Your task to perform on an android device: Clear all items from cart on newegg. Add bose quietcomfort 35 to the cart on newegg, then select checkout. Image 0: 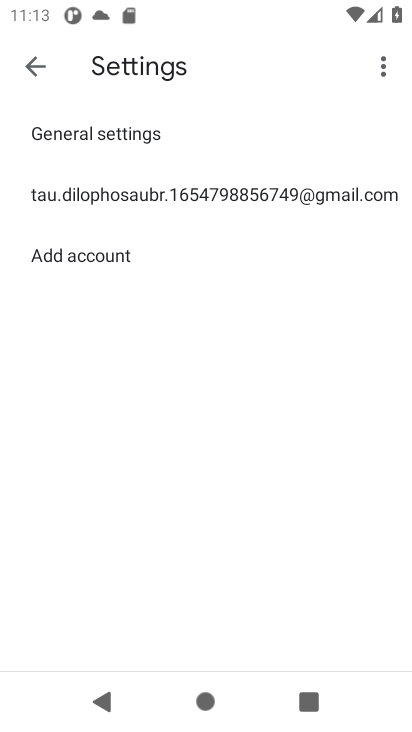
Step 0: press home button
Your task to perform on an android device: Clear all items from cart on newegg. Add bose quietcomfort 35 to the cart on newegg, then select checkout. Image 1: 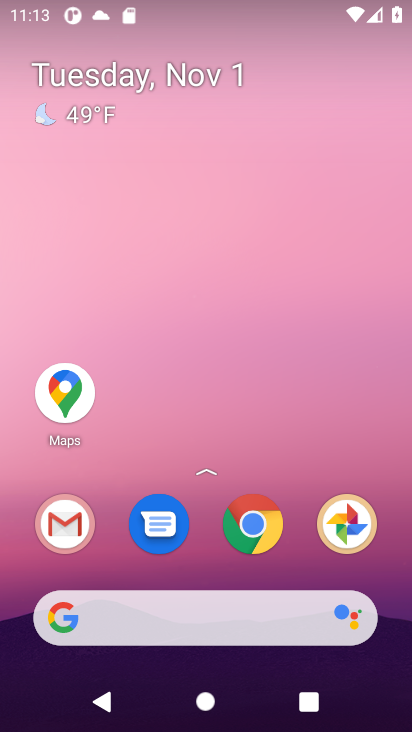
Step 1: click (92, 612)
Your task to perform on an android device: Clear all items from cart on newegg. Add bose quietcomfort 35 to the cart on newegg, then select checkout. Image 2: 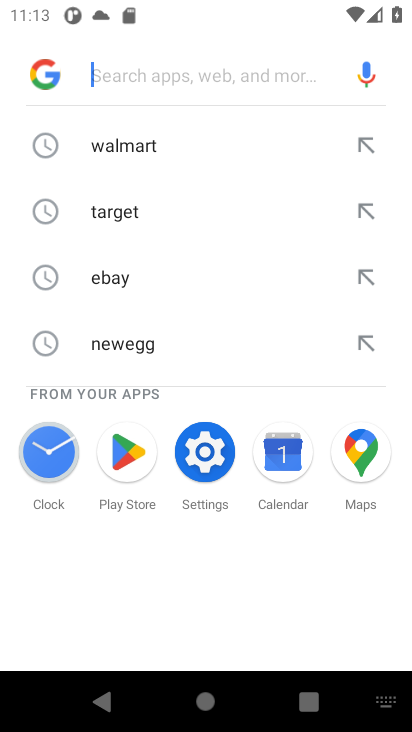
Step 2: type "newegg"
Your task to perform on an android device: Clear all items from cart on newegg. Add bose quietcomfort 35 to the cart on newegg, then select checkout. Image 3: 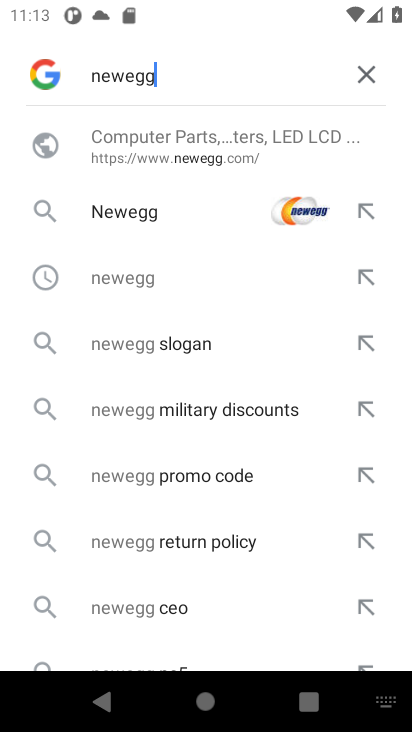
Step 3: press enter
Your task to perform on an android device: Clear all items from cart on newegg. Add bose quietcomfort 35 to the cart on newegg, then select checkout. Image 4: 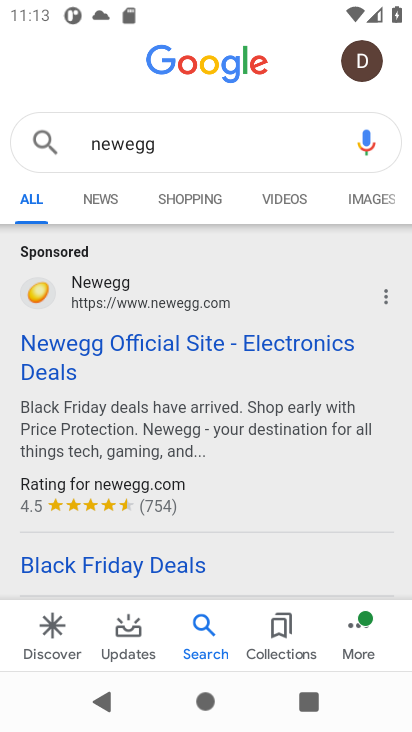
Step 4: click (243, 356)
Your task to perform on an android device: Clear all items from cart on newegg. Add bose quietcomfort 35 to the cart on newegg, then select checkout. Image 5: 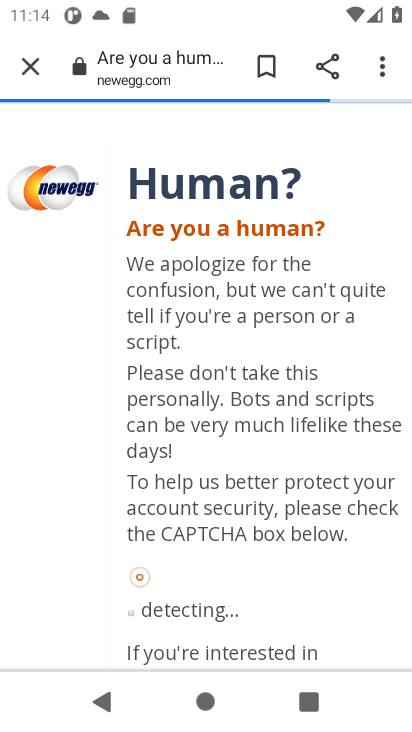
Step 5: drag from (259, 529) to (277, 250)
Your task to perform on an android device: Clear all items from cart on newegg. Add bose quietcomfort 35 to the cart on newegg, then select checkout. Image 6: 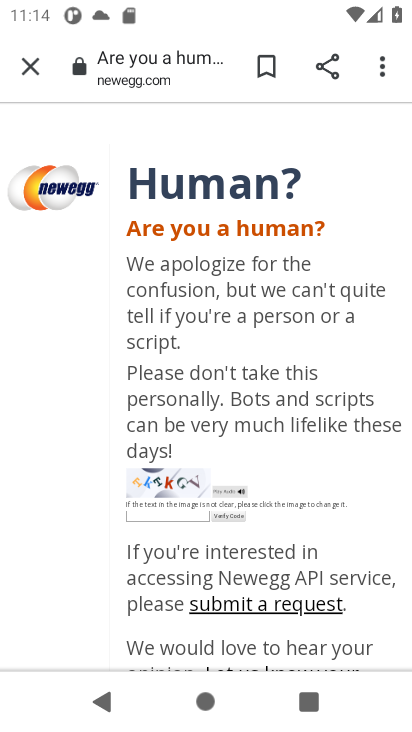
Step 6: click (150, 517)
Your task to perform on an android device: Clear all items from cart on newegg. Add bose quietcomfort 35 to the cart on newegg, then select checkout. Image 7: 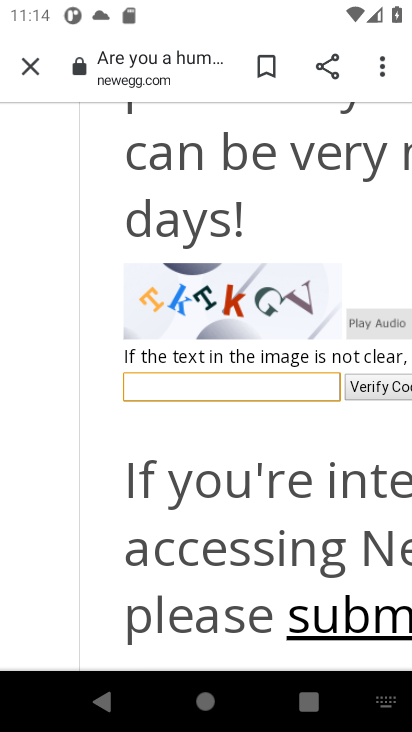
Step 7: type "TkTKGV"
Your task to perform on an android device: Clear all items from cart on newegg. Add bose quietcomfort 35 to the cart on newegg, then select checkout. Image 8: 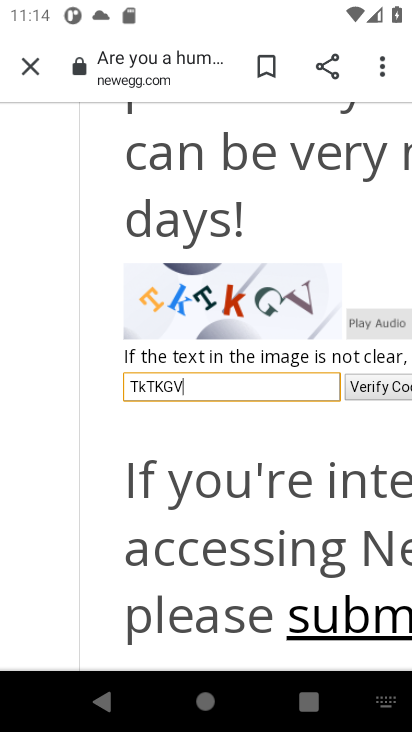
Step 8: press enter
Your task to perform on an android device: Clear all items from cart on newegg. Add bose quietcomfort 35 to the cart on newegg, then select checkout. Image 9: 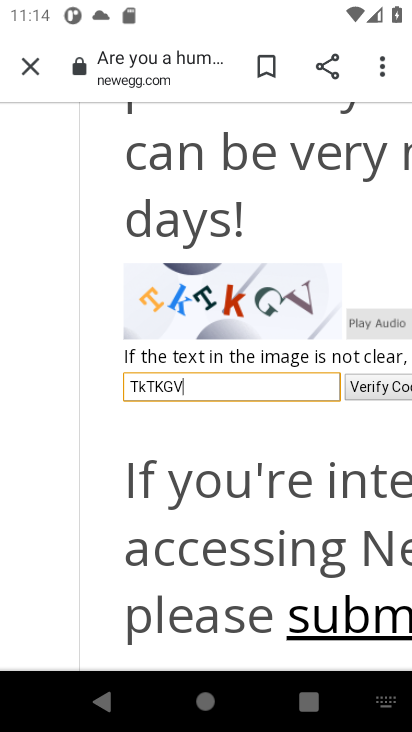
Step 9: click (383, 385)
Your task to perform on an android device: Clear all items from cart on newegg. Add bose quietcomfort 35 to the cart on newegg, then select checkout. Image 10: 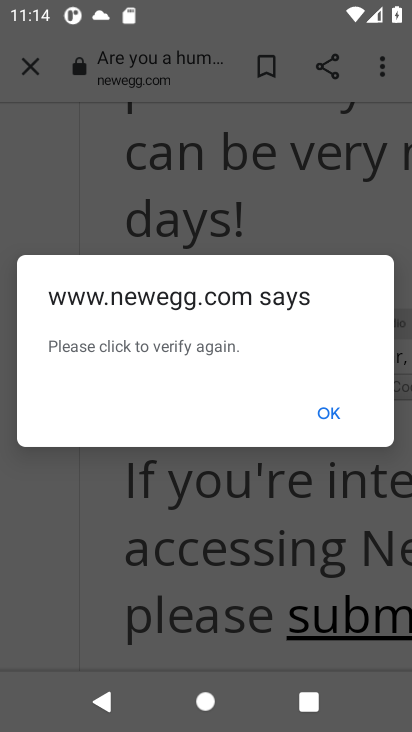
Step 10: click (332, 414)
Your task to perform on an android device: Clear all items from cart on newegg. Add bose quietcomfort 35 to the cart on newegg, then select checkout. Image 11: 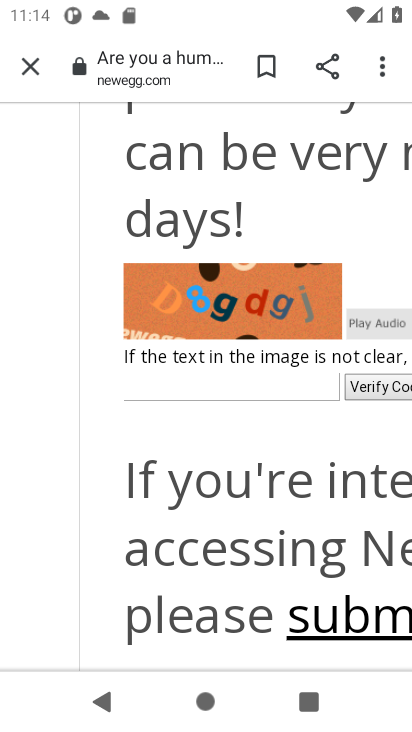
Step 11: click (237, 384)
Your task to perform on an android device: Clear all items from cart on newegg. Add bose quietcomfort 35 to the cart on newegg, then select checkout. Image 12: 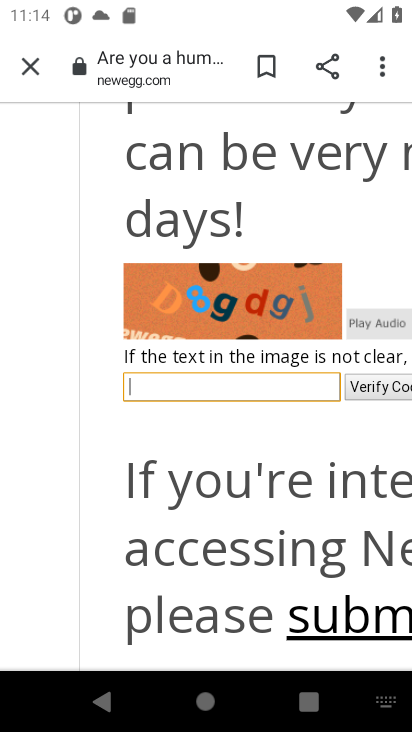
Step 12: type "D8gdgj"
Your task to perform on an android device: Clear all items from cart on newegg. Add bose quietcomfort 35 to the cart on newegg, then select checkout. Image 13: 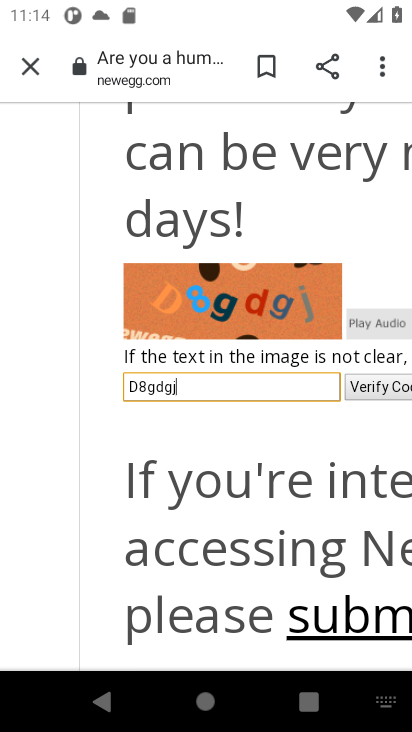
Step 13: press enter
Your task to perform on an android device: Clear all items from cart on newegg. Add bose quietcomfort 35 to the cart on newegg, then select checkout. Image 14: 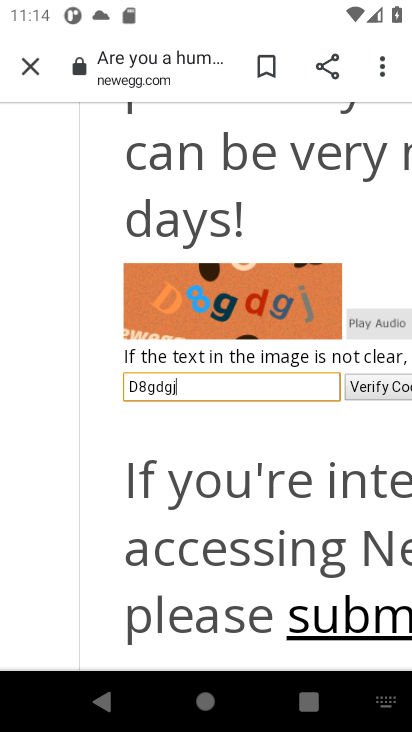
Step 14: click (376, 386)
Your task to perform on an android device: Clear all items from cart on newegg. Add bose quietcomfort 35 to the cart on newegg, then select checkout. Image 15: 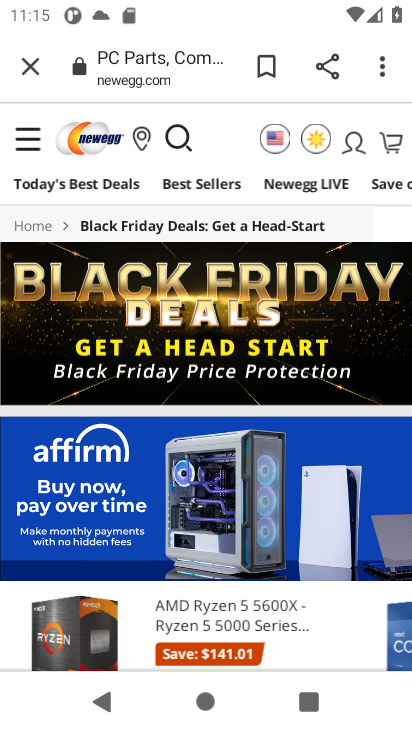
Step 15: click (397, 142)
Your task to perform on an android device: Clear all items from cart on newegg. Add bose quietcomfort 35 to the cart on newegg, then select checkout. Image 16: 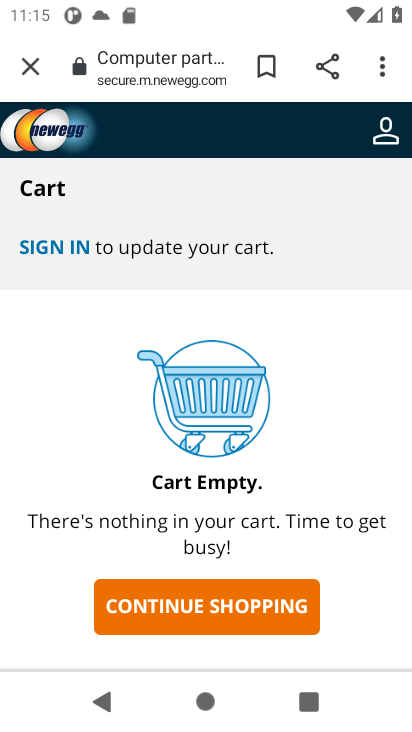
Step 16: press back button
Your task to perform on an android device: Clear all items from cart on newegg. Add bose quietcomfort 35 to the cart on newegg, then select checkout. Image 17: 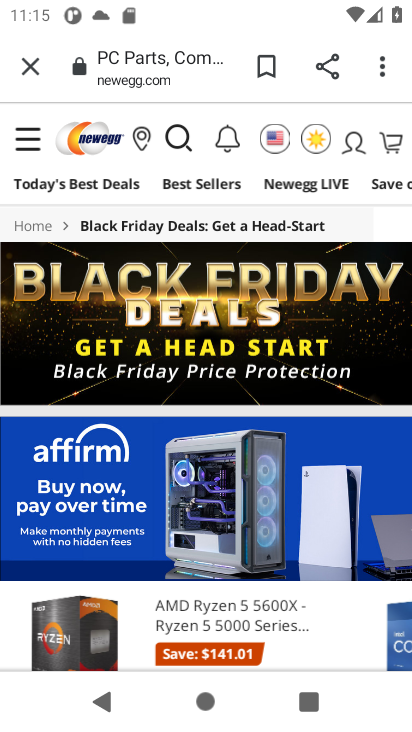
Step 17: click (176, 133)
Your task to perform on an android device: Clear all items from cart on newegg. Add bose quietcomfort 35 to the cart on newegg, then select checkout. Image 18: 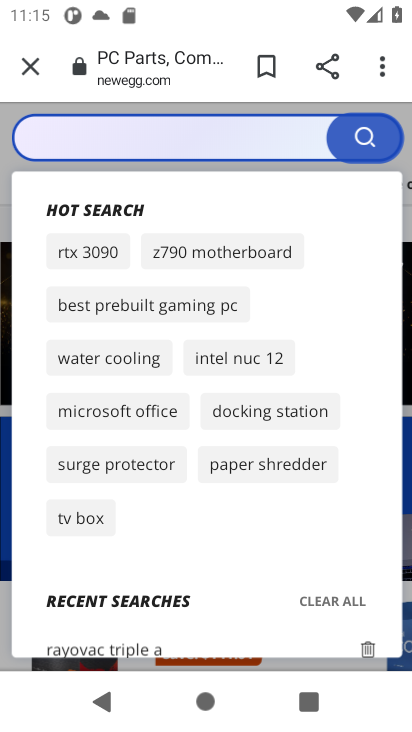
Step 18: click (139, 128)
Your task to perform on an android device: Clear all items from cart on newegg. Add bose quietcomfort 35 to the cart on newegg, then select checkout. Image 19: 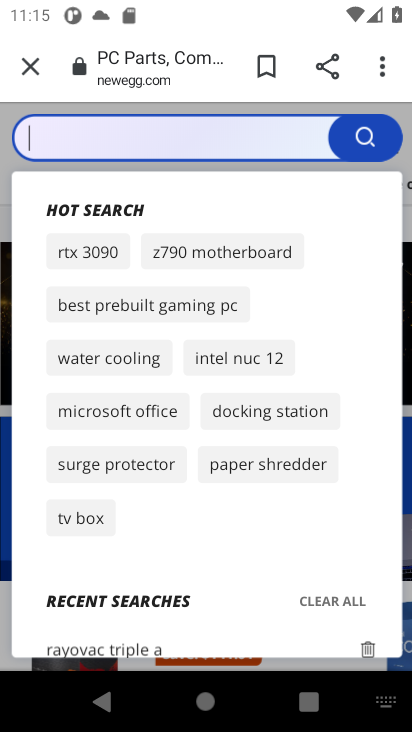
Step 19: type " bose quietcomfort 35"
Your task to perform on an android device: Clear all items from cart on newegg. Add bose quietcomfort 35 to the cart on newegg, then select checkout. Image 20: 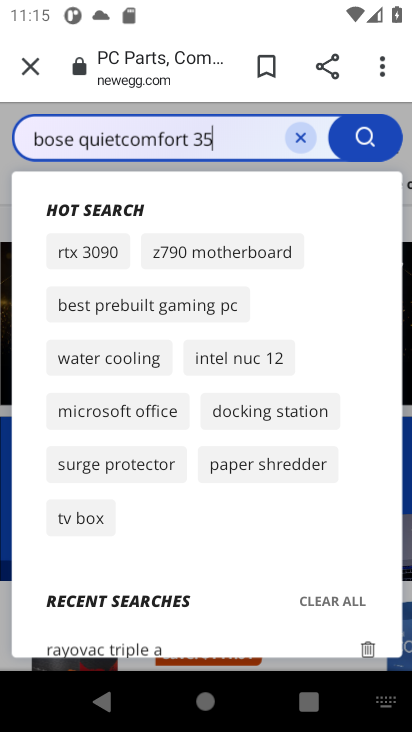
Step 20: press enter
Your task to perform on an android device: Clear all items from cart on newegg. Add bose quietcomfort 35 to the cart on newegg, then select checkout. Image 21: 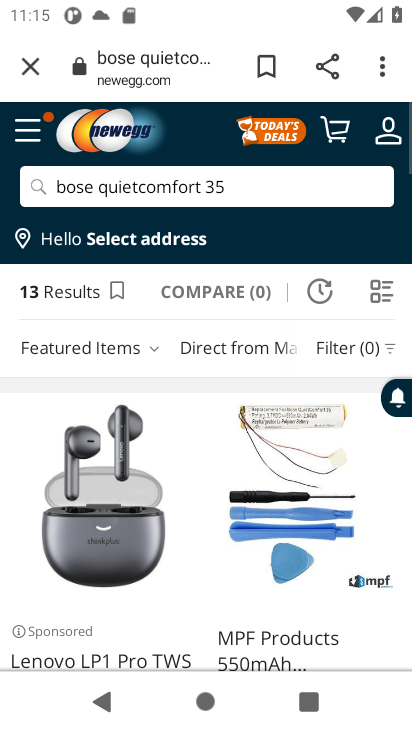
Step 21: drag from (241, 600) to (238, 286)
Your task to perform on an android device: Clear all items from cart on newegg. Add bose quietcomfort 35 to the cart on newegg, then select checkout. Image 22: 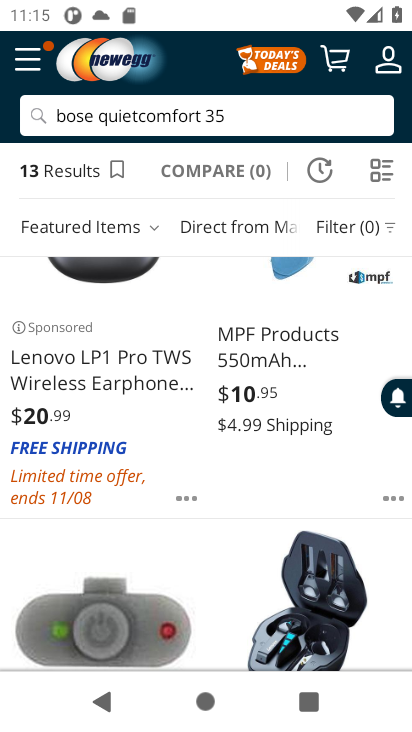
Step 22: drag from (241, 557) to (243, 252)
Your task to perform on an android device: Clear all items from cart on newegg. Add bose quietcomfort 35 to the cart on newegg, then select checkout. Image 23: 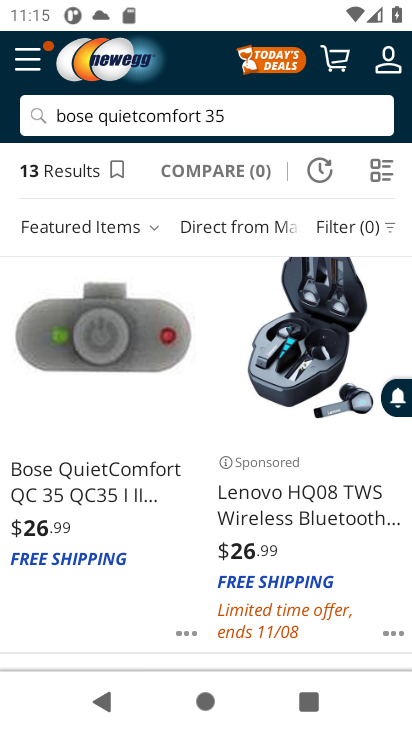
Step 23: click (87, 472)
Your task to perform on an android device: Clear all items from cart on newegg. Add bose quietcomfort 35 to the cart on newegg, then select checkout. Image 24: 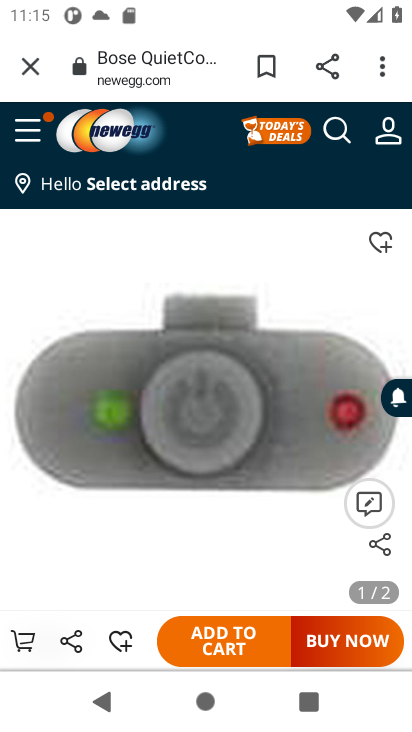
Step 24: drag from (195, 540) to (209, 289)
Your task to perform on an android device: Clear all items from cart on newegg. Add bose quietcomfort 35 to the cart on newegg, then select checkout. Image 25: 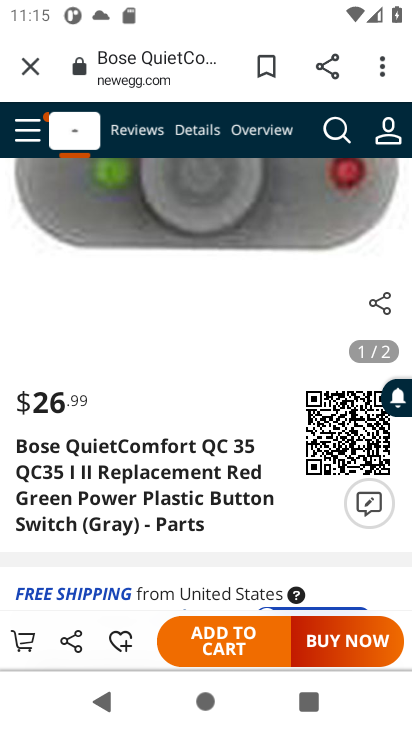
Step 25: click (228, 641)
Your task to perform on an android device: Clear all items from cart on newegg. Add bose quietcomfort 35 to the cart on newegg, then select checkout. Image 26: 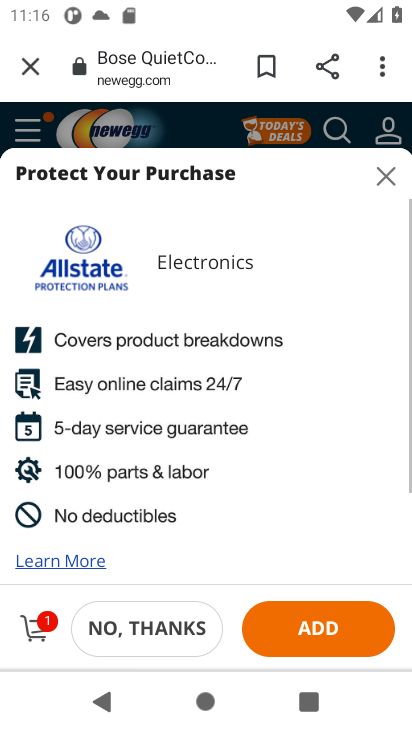
Step 26: click (150, 629)
Your task to perform on an android device: Clear all items from cart on newegg. Add bose quietcomfort 35 to the cart on newegg, then select checkout. Image 27: 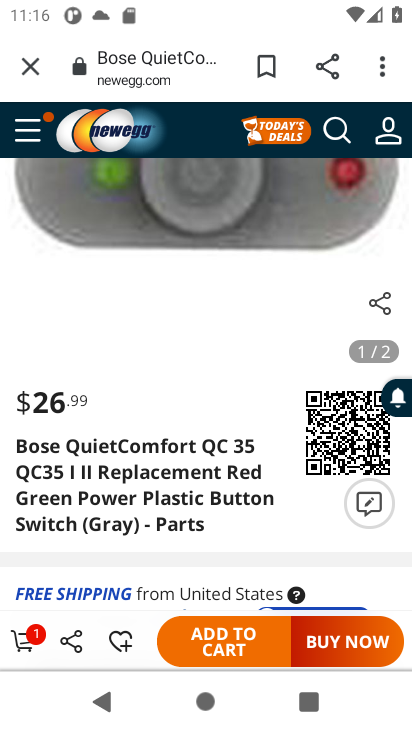
Step 27: click (21, 644)
Your task to perform on an android device: Clear all items from cart on newegg. Add bose quietcomfort 35 to the cart on newegg, then select checkout. Image 28: 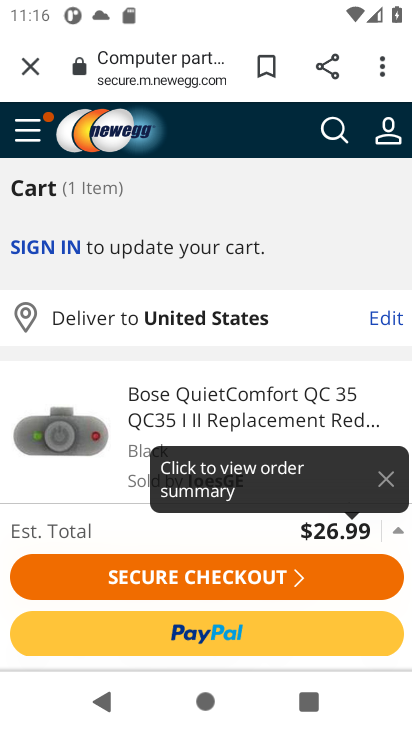
Step 28: click (221, 579)
Your task to perform on an android device: Clear all items from cart on newegg. Add bose quietcomfort 35 to the cart on newegg, then select checkout. Image 29: 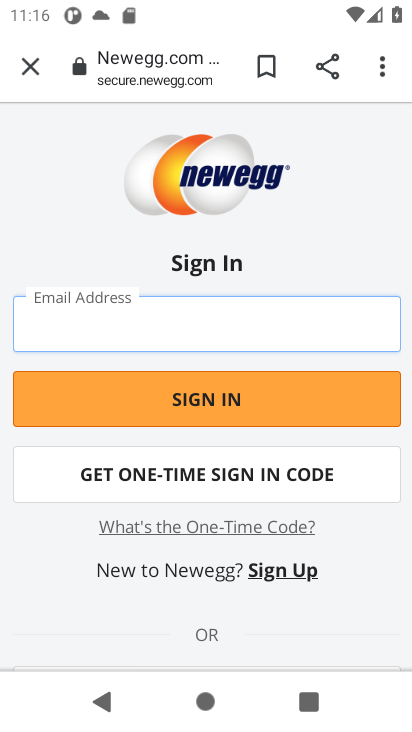
Step 29: task complete